Your task to perform on an android device: Open Reddit.com Image 0: 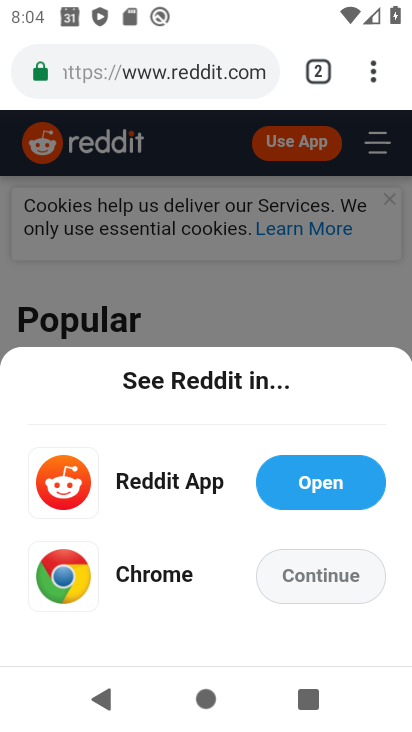
Step 0: press home button
Your task to perform on an android device: Open Reddit.com Image 1: 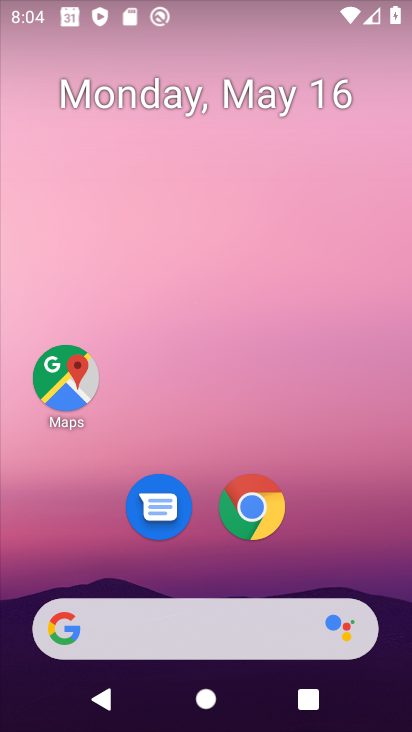
Step 1: click (263, 502)
Your task to perform on an android device: Open Reddit.com Image 2: 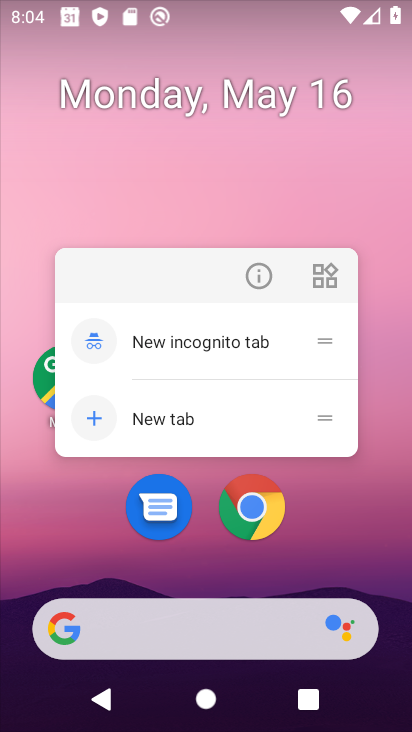
Step 2: click (239, 506)
Your task to perform on an android device: Open Reddit.com Image 3: 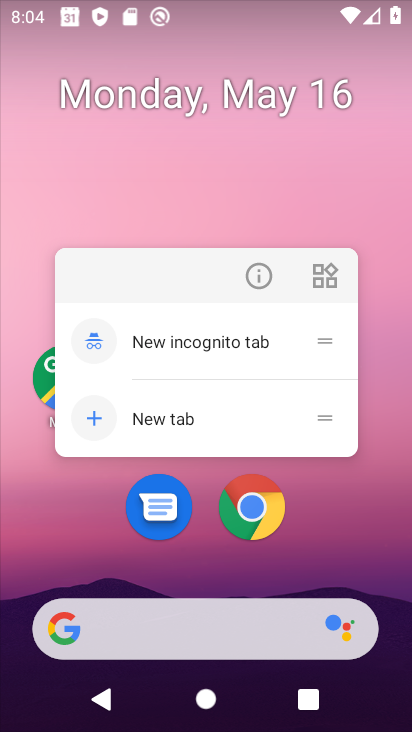
Step 3: click (239, 506)
Your task to perform on an android device: Open Reddit.com Image 4: 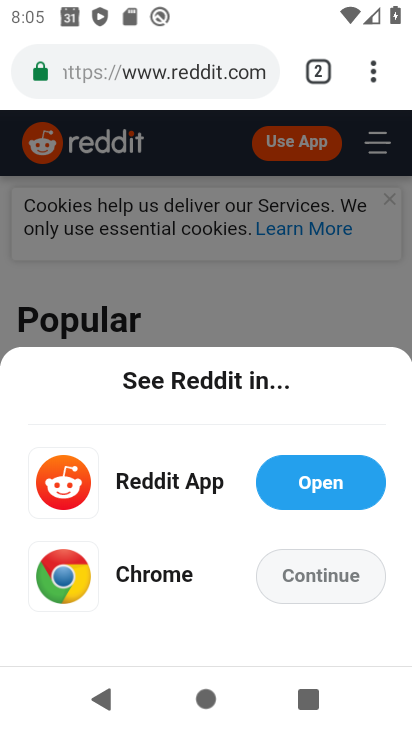
Step 4: task complete